Your task to perform on an android device: Go to wifi settings Image 0: 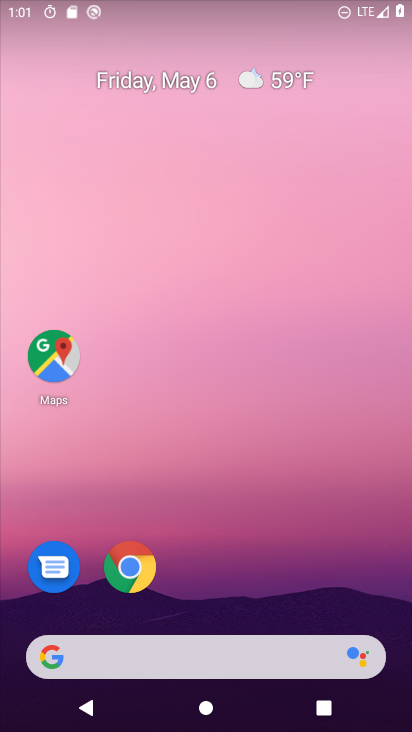
Step 0: drag from (344, 611) to (372, 4)
Your task to perform on an android device: Go to wifi settings Image 1: 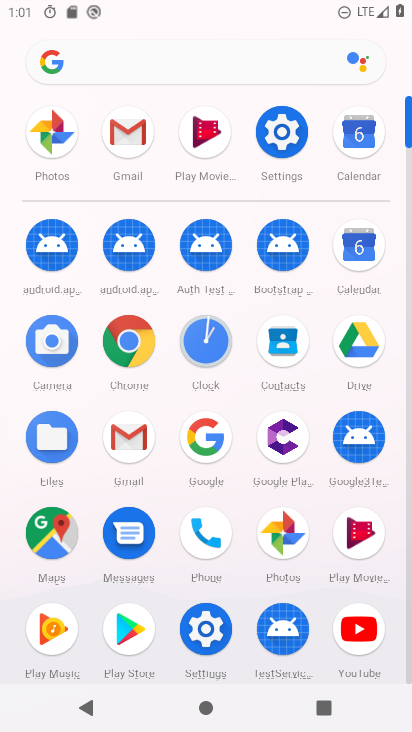
Step 1: click (280, 127)
Your task to perform on an android device: Go to wifi settings Image 2: 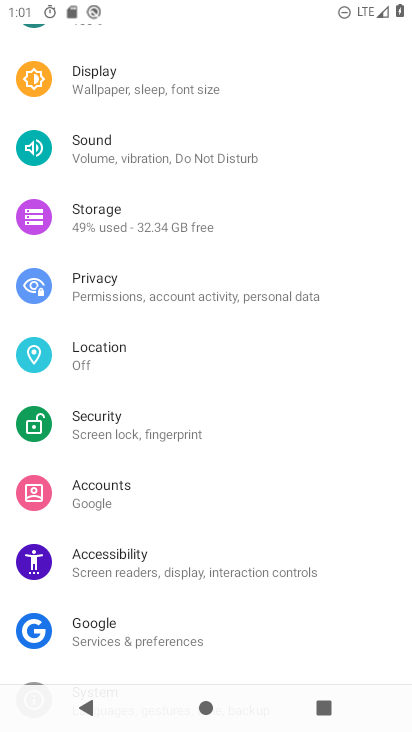
Step 2: drag from (341, 139) to (362, 630)
Your task to perform on an android device: Go to wifi settings Image 3: 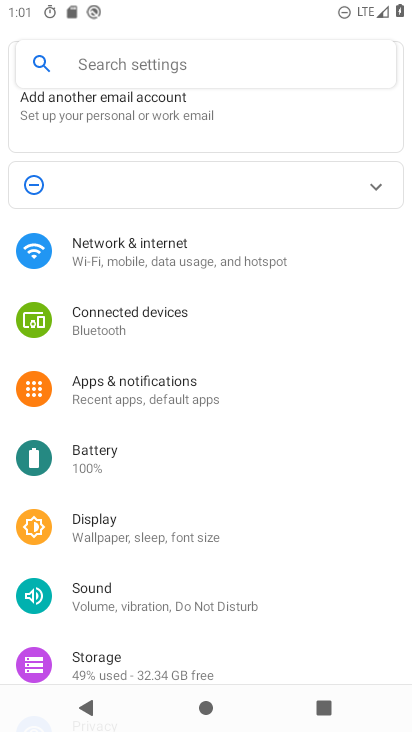
Step 3: click (125, 260)
Your task to perform on an android device: Go to wifi settings Image 4: 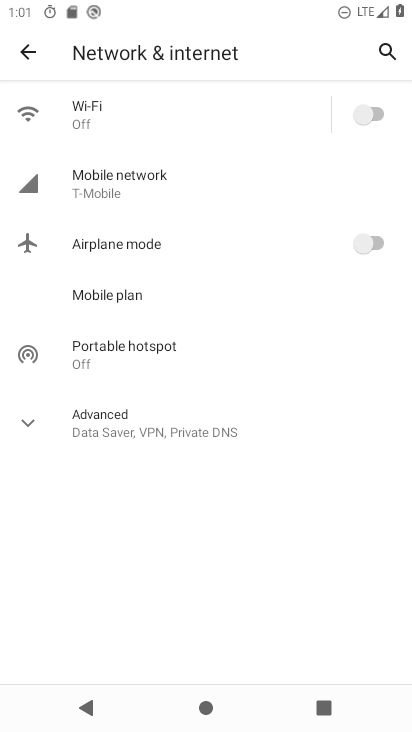
Step 4: click (80, 123)
Your task to perform on an android device: Go to wifi settings Image 5: 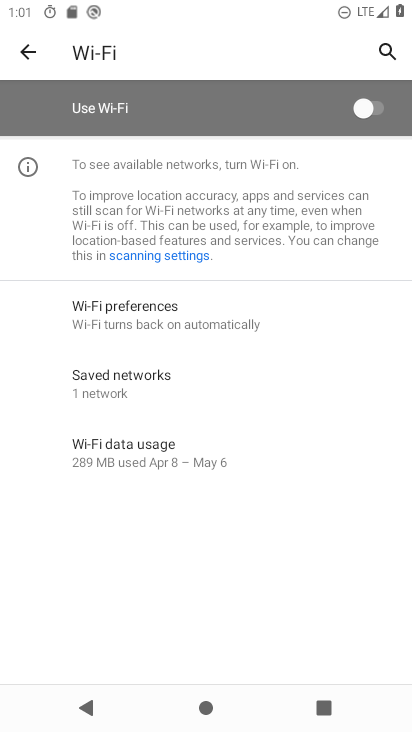
Step 5: task complete